Your task to perform on an android device: Open ESPN.com Image 0: 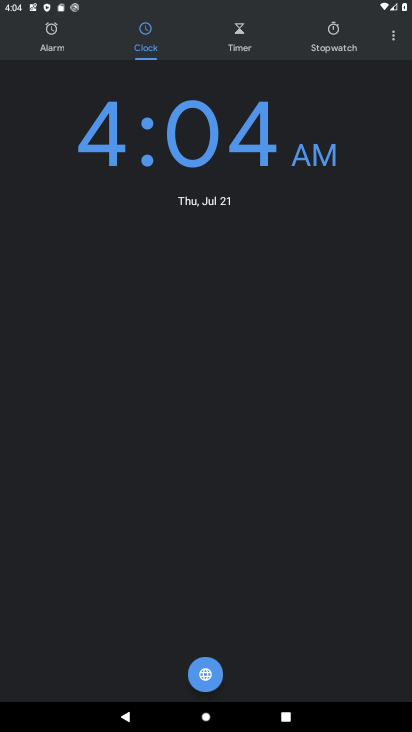
Step 0: press home button
Your task to perform on an android device: Open ESPN.com Image 1: 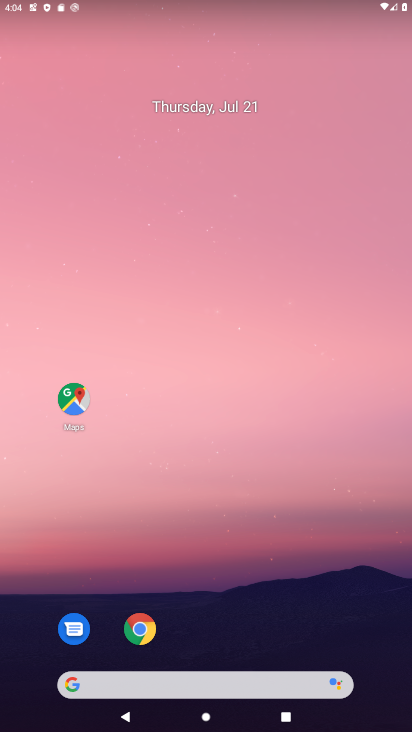
Step 1: click (139, 635)
Your task to perform on an android device: Open ESPN.com Image 2: 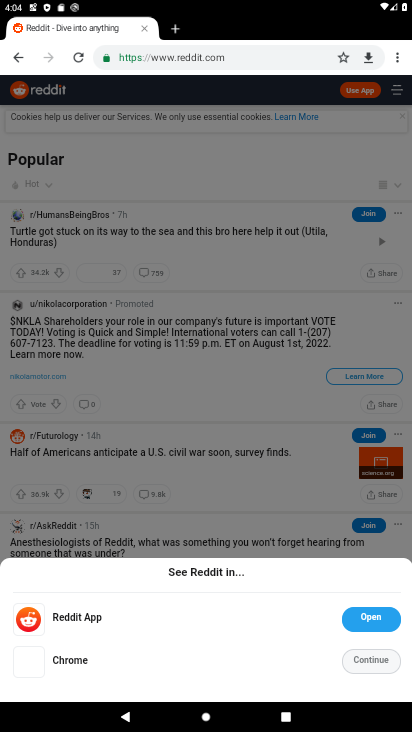
Step 2: click (170, 28)
Your task to perform on an android device: Open ESPN.com Image 3: 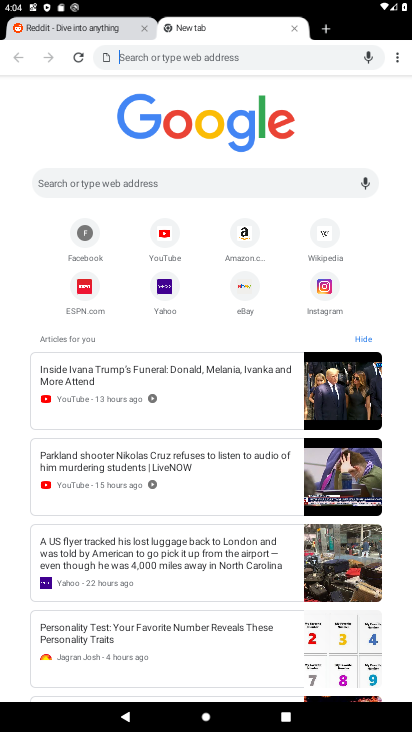
Step 3: click (90, 284)
Your task to perform on an android device: Open ESPN.com Image 4: 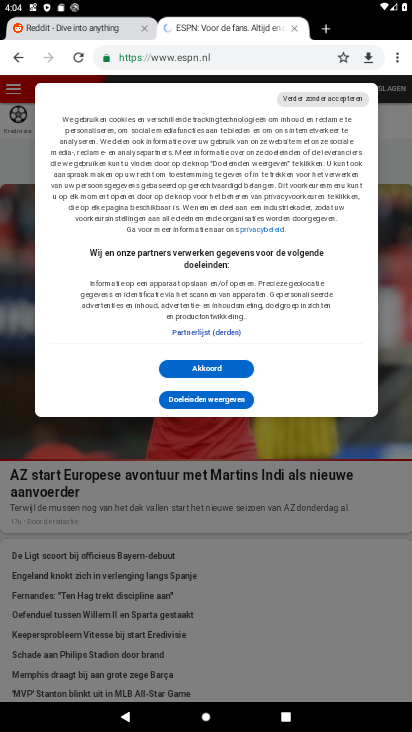
Step 4: task complete